Your task to perform on an android device: Search for vegetarian restaurants on Maps Image 0: 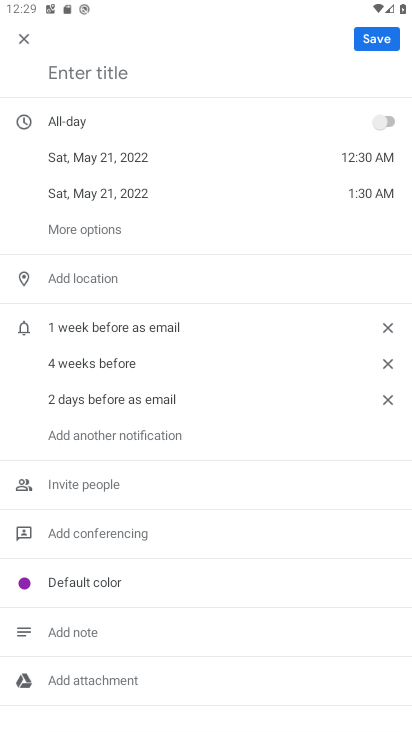
Step 0: press home button
Your task to perform on an android device: Search for vegetarian restaurants on Maps Image 1: 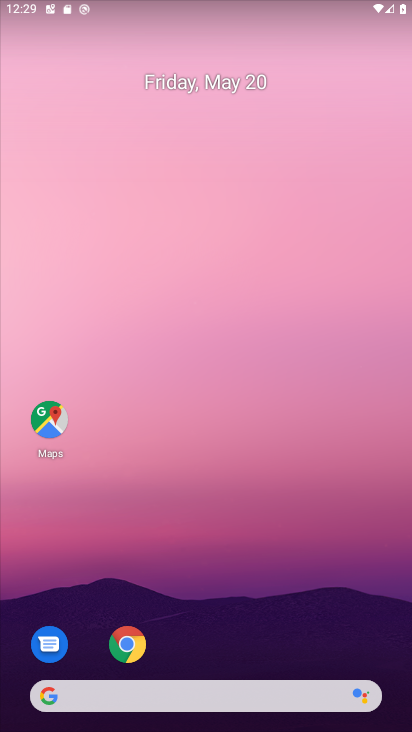
Step 1: click (197, 250)
Your task to perform on an android device: Search for vegetarian restaurants on Maps Image 2: 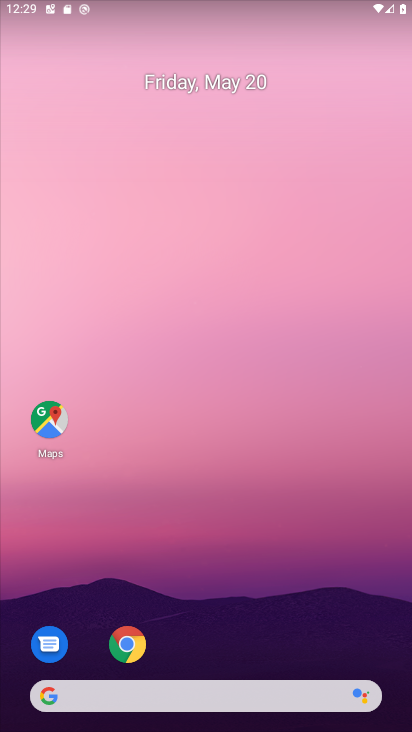
Step 2: click (70, 417)
Your task to perform on an android device: Search for vegetarian restaurants on Maps Image 3: 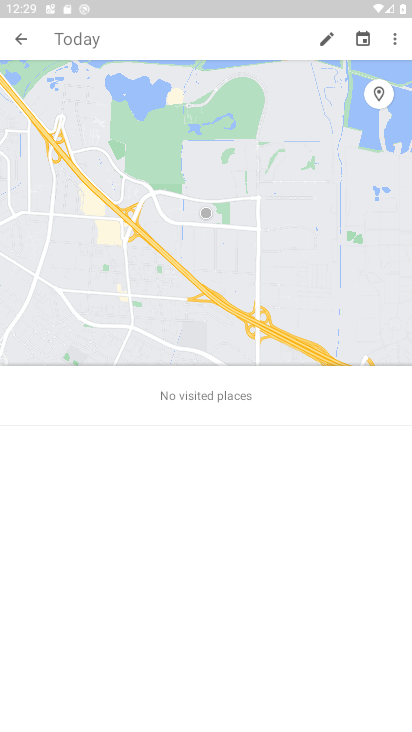
Step 3: click (20, 35)
Your task to perform on an android device: Search for vegetarian restaurants on Maps Image 4: 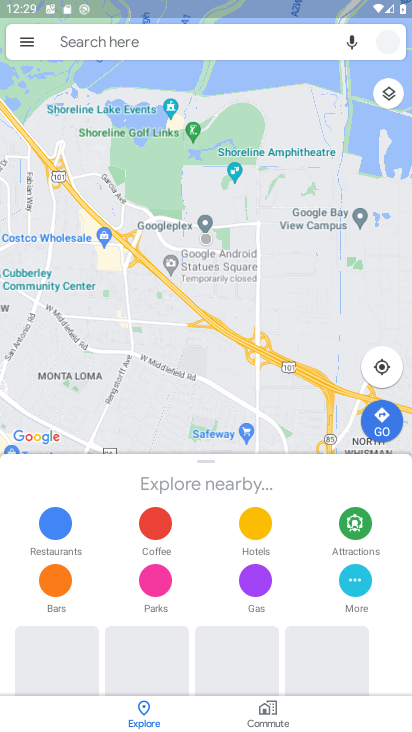
Step 4: click (108, 48)
Your task to perform on an android device: Search for vegetarian restaurants on Maps Image 5: 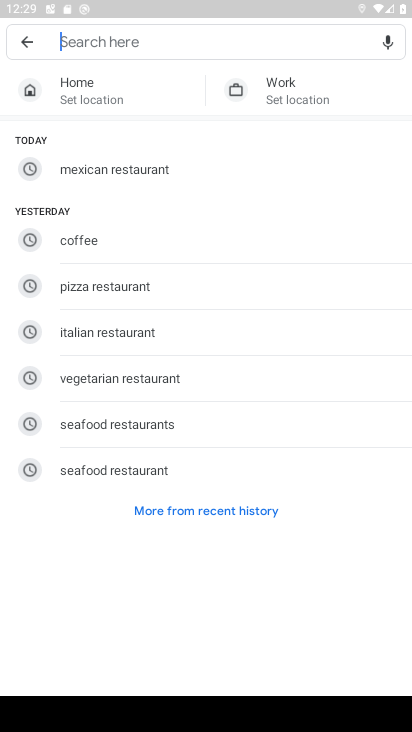
Step 5: click (114, 380)
Your task to perform on an android device: Search for vegetarian restaurants on Maps Image 6: 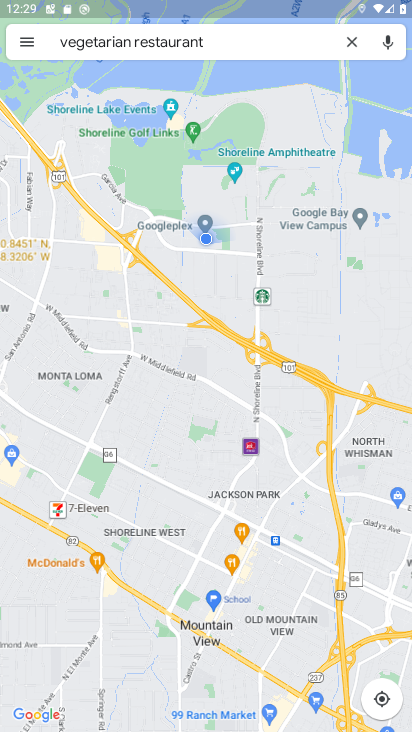
Step 6: task complete